Your task to perform on an android device: Go to Yahoo.com Image 0: 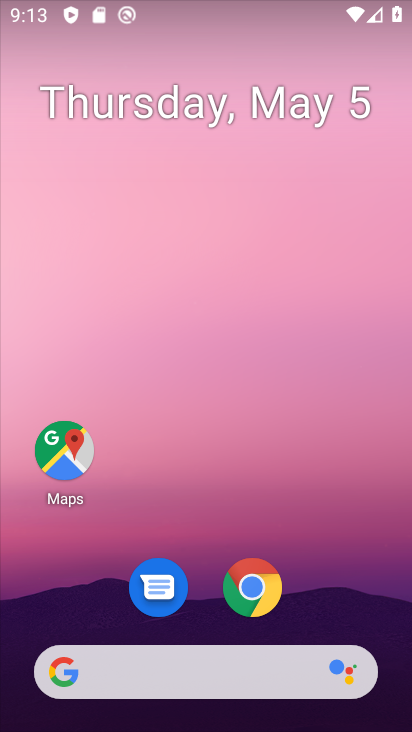
Step 0: drag from (287, 655) to (316, 307)
Your task to perform on an android device: Go to Yahoo.com Image 1: 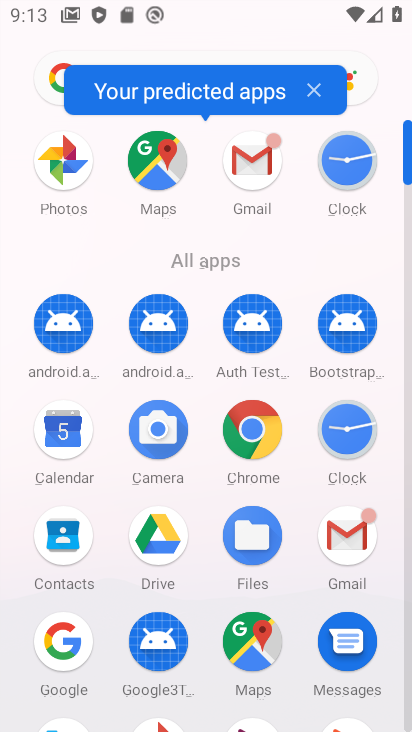
Step 1: click (264, 440)
Your task to perform on an android device: Go to Yahoo.com Image 2: 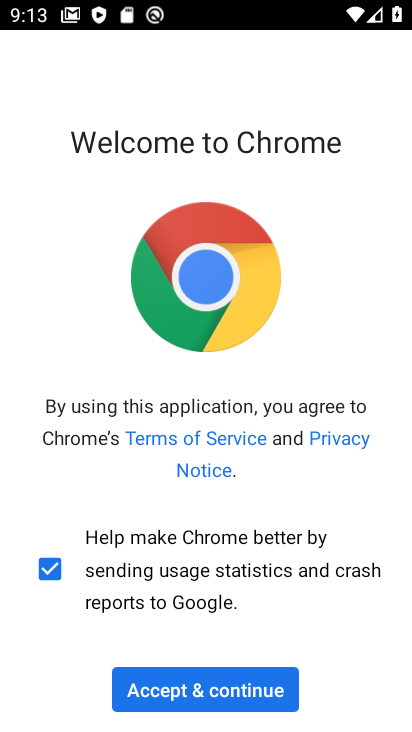
Step 2: click (265, 678)
Your task to perform on an android device: Go to Yahoo.com Image 3: 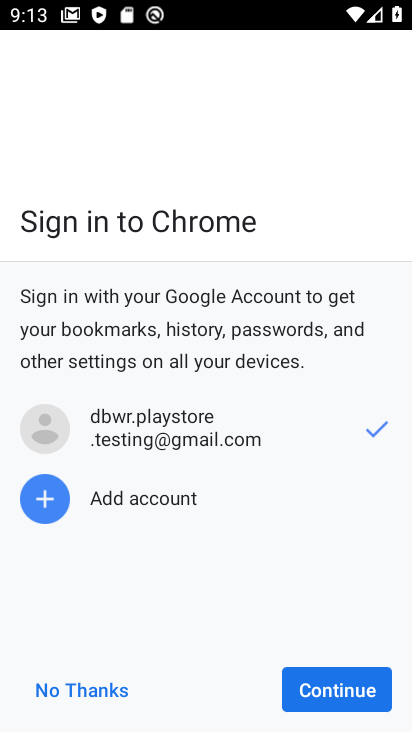
Step 3: click (339, 693)
Your task to perform on an android device: Go to Yahoo.com Image 4: 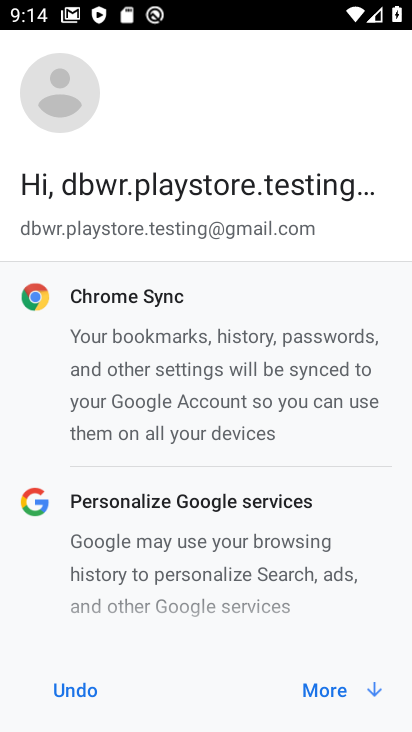
Step 4: click (329, 696)
Your task to perform on an android device: Go to Yahoo.com Image 5: 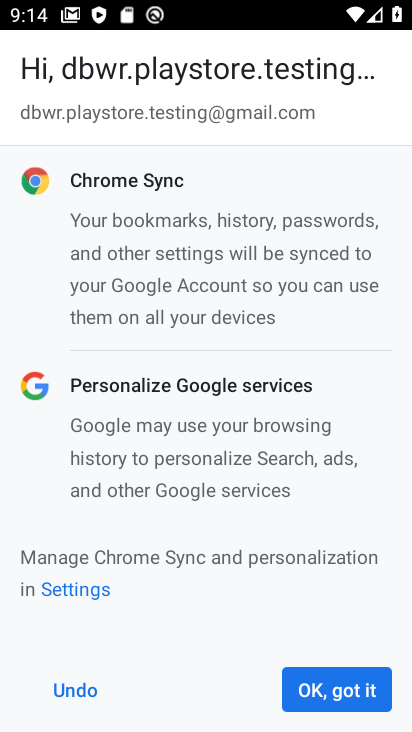
Step 5: click (292, 717)
Your task to perform on an android device: Go to Yahoo.com Image 6: 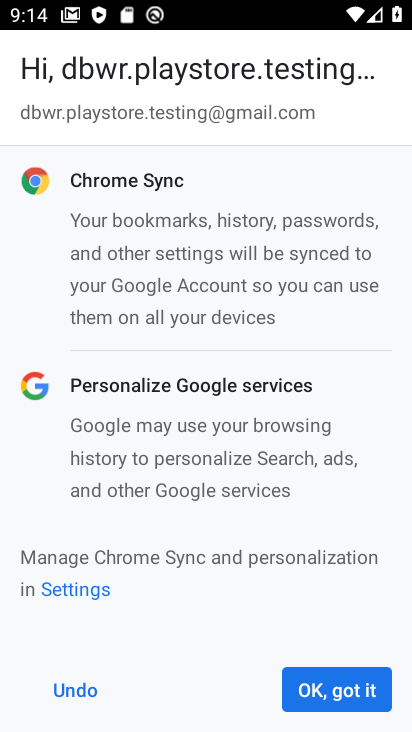
Step 6: click (324, 695)
Your task to perform on an android device: Go to Yahoo.com Image 7: 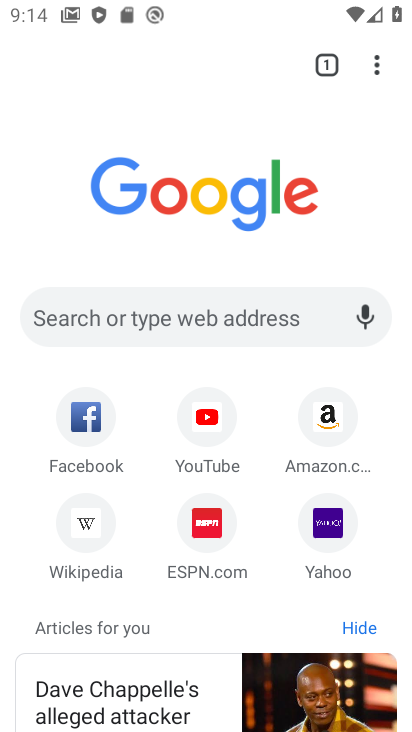
Step 7: click (251, 330)
Your task to perform on an android device: Go to Yahoo.com Image 8: 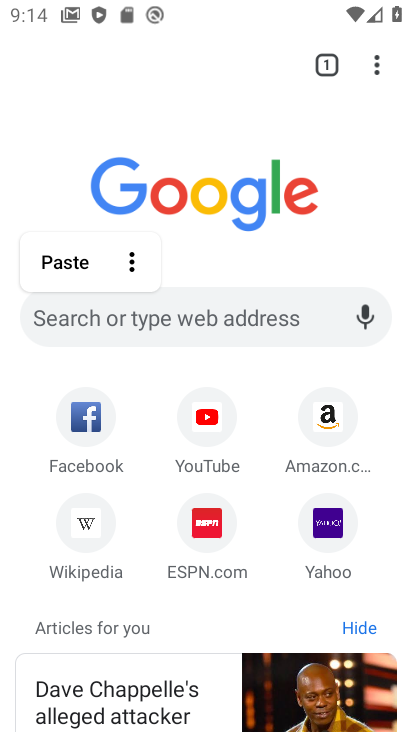
Step 8: type "yahoo.com"
Your task to perform on an android device: Go to Yahoo.com Image 9: 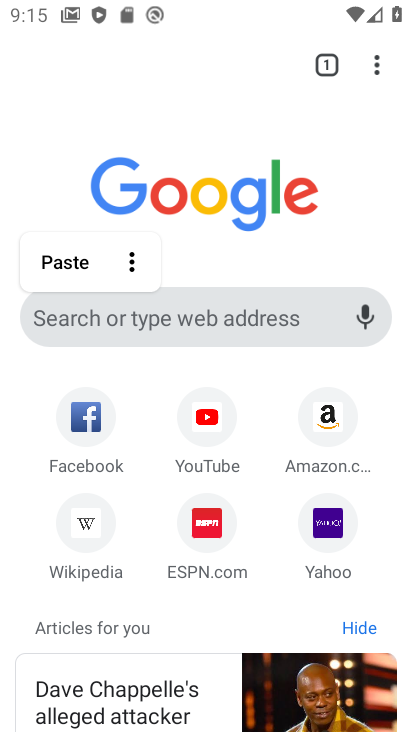
Step 9: click (61, 262)
Your task to perform on an android device: Go to Yahoo.com Image 10: 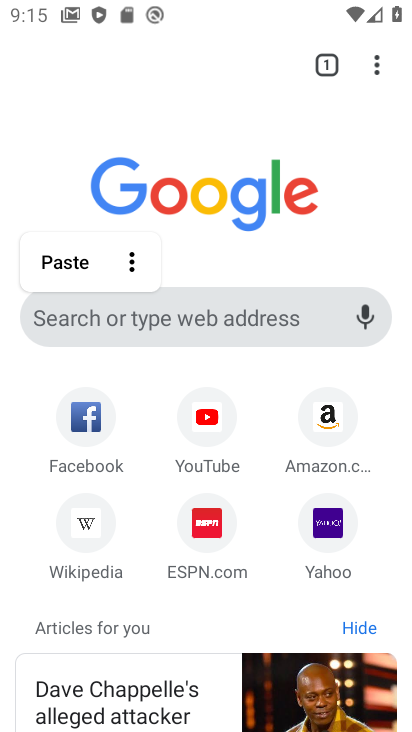
Step 10: click (188, 323)
Your task to perform on an android device: Go to Yahoo.com Image 11: 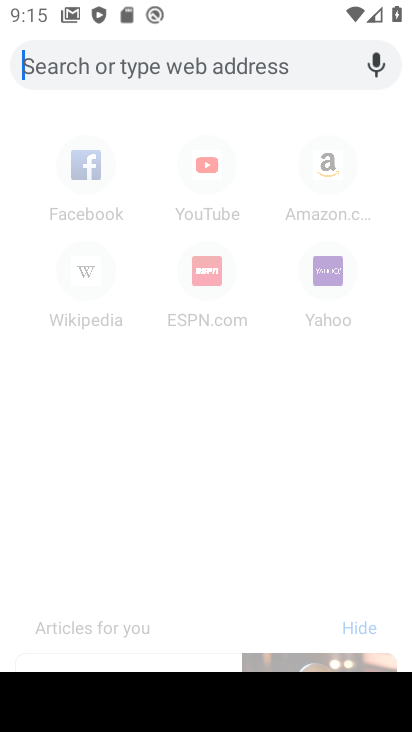
Step 11: type "yahhoo.com"
Your task to perform on an android device: Go to Yahoo.com Image 12: 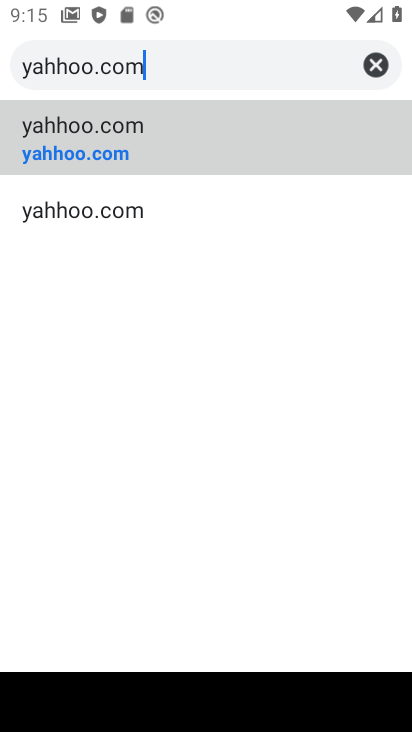
Step 12: click (181, 134)
Your task to perform on an android device: Go to Yahoo.com Image 13: 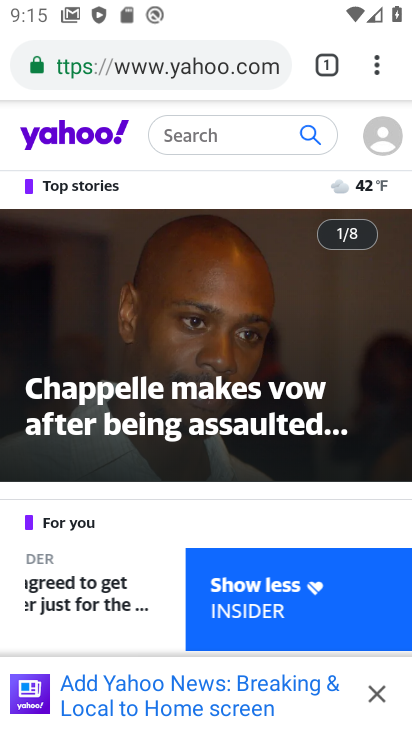
Step 13: task complete